Your task to perform on an android device: Go to notification settings Image 0: 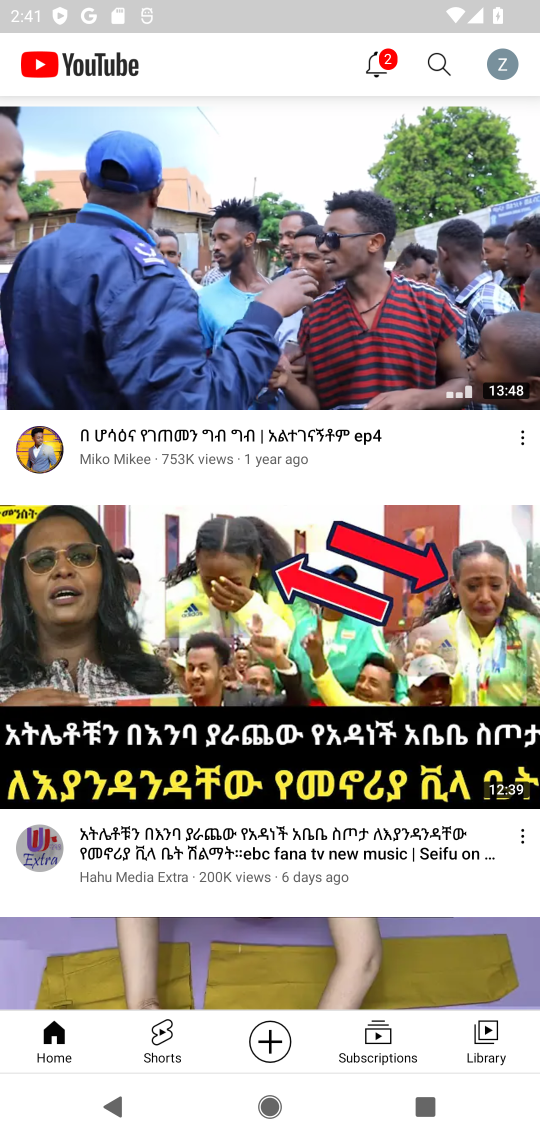
Step 0: drag from (300, 962) to (385, 441)
Your task to perform on an android device: Go to notification settings Image 1: 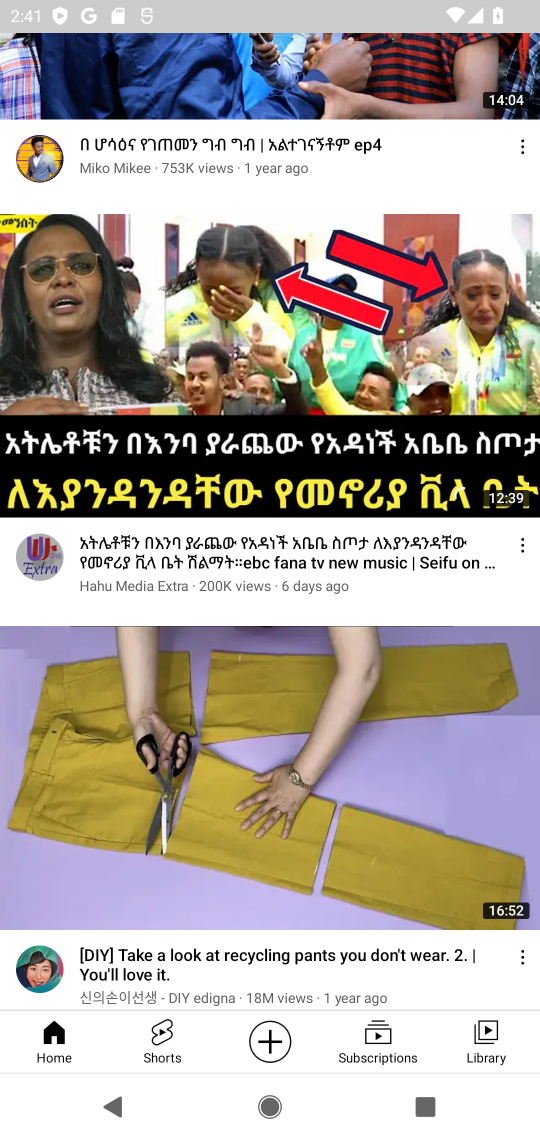
Step 1: press home button
Your task to perform on an android device: Go to notification settings Image 2: 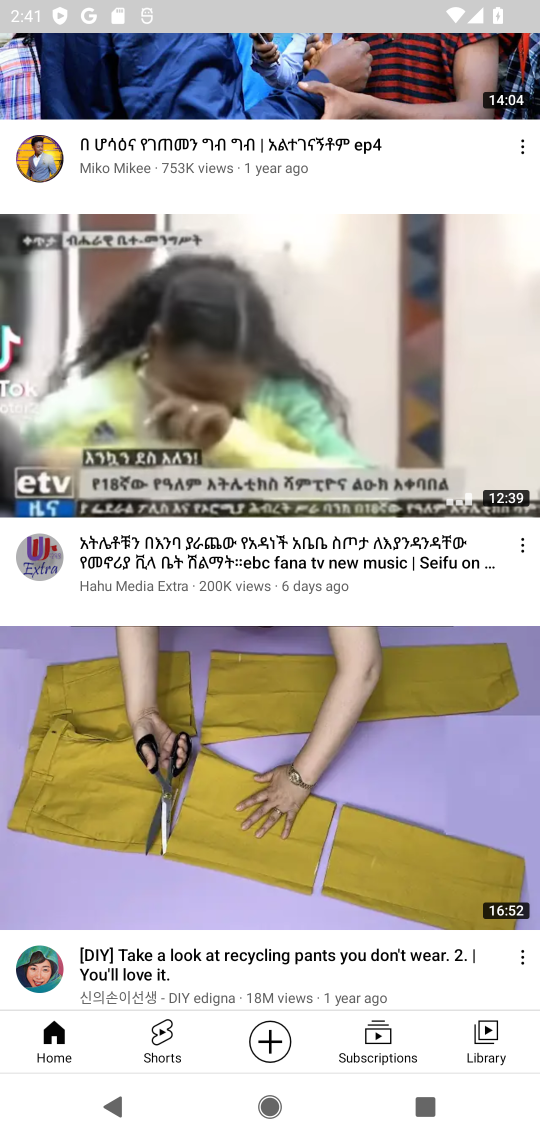
Step 2: drag from (304, 773) to (370, 180)
Your task to perform on an android device: Go to notification settings Image 3: 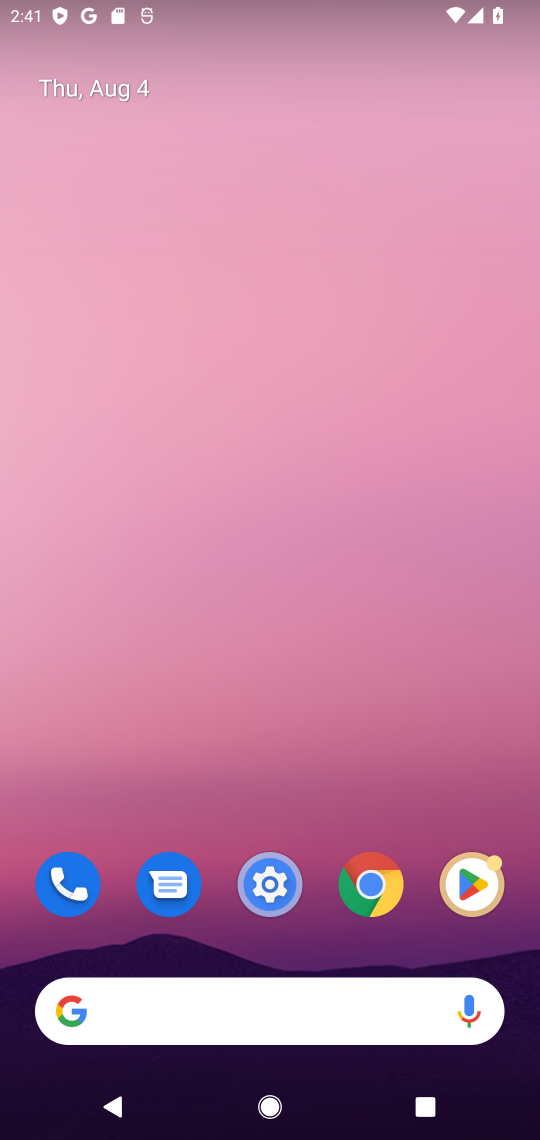
Step 3: drag from (234, 938) to (289, 517)
Your task to perform on an android device: Go to notification settings Image 4: 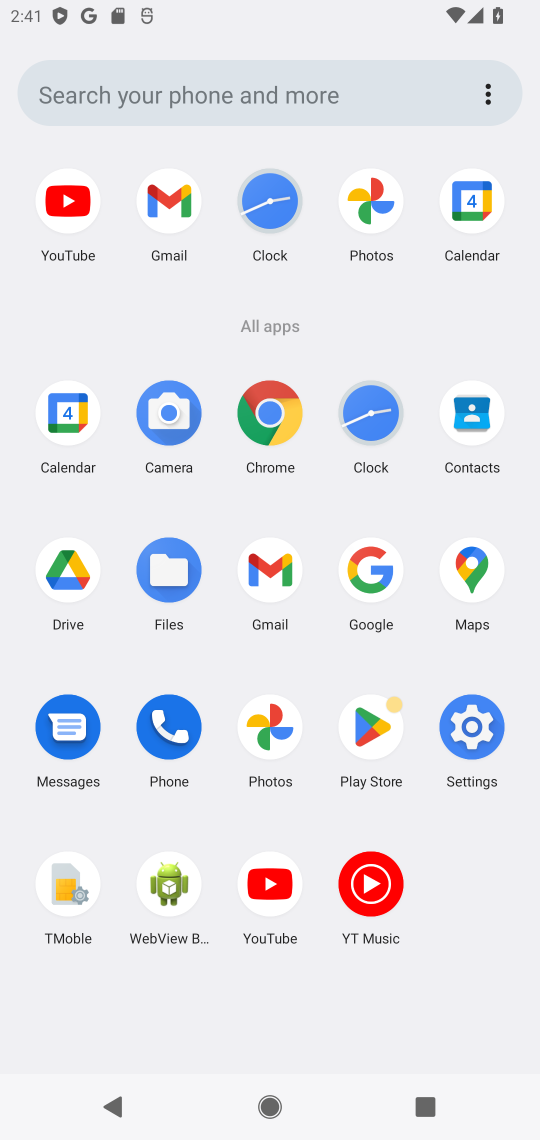
Step 4: click (478, 729)
Your task to perform on an android device: Go to notification settings Image 5: 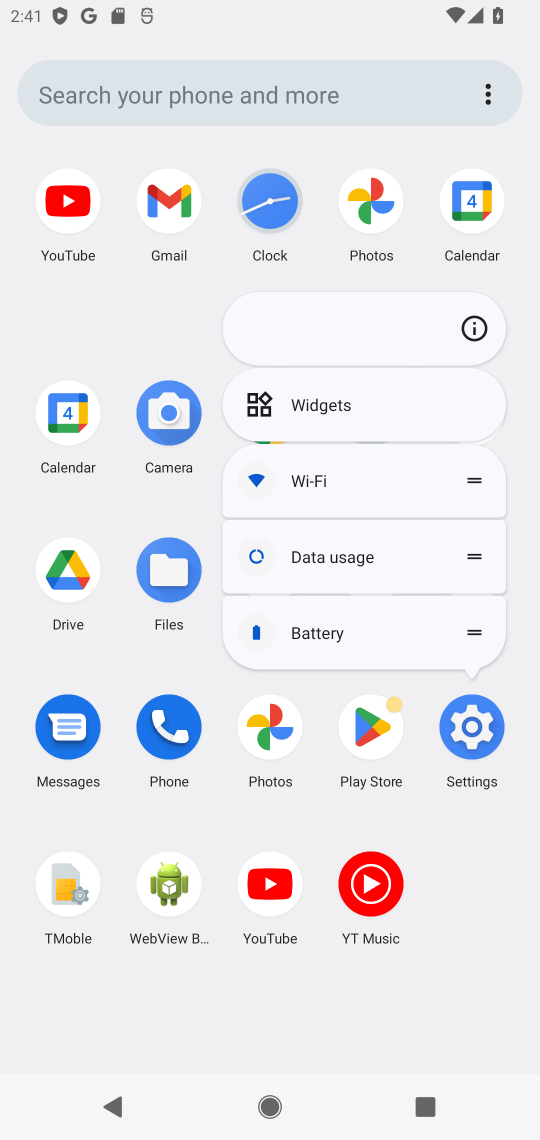
Step 5: click (481, 317)
Your task to perform on an android device: Go to notification settings Image 6: 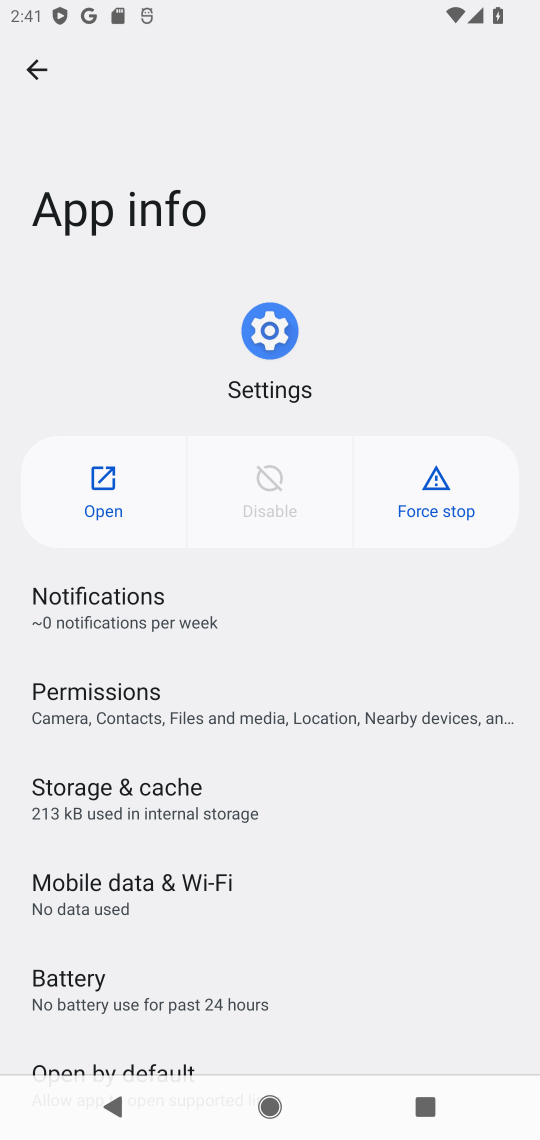
Step 6: click (94, 507)
Your task to perform on an android device: Go to notification settings Image 7: 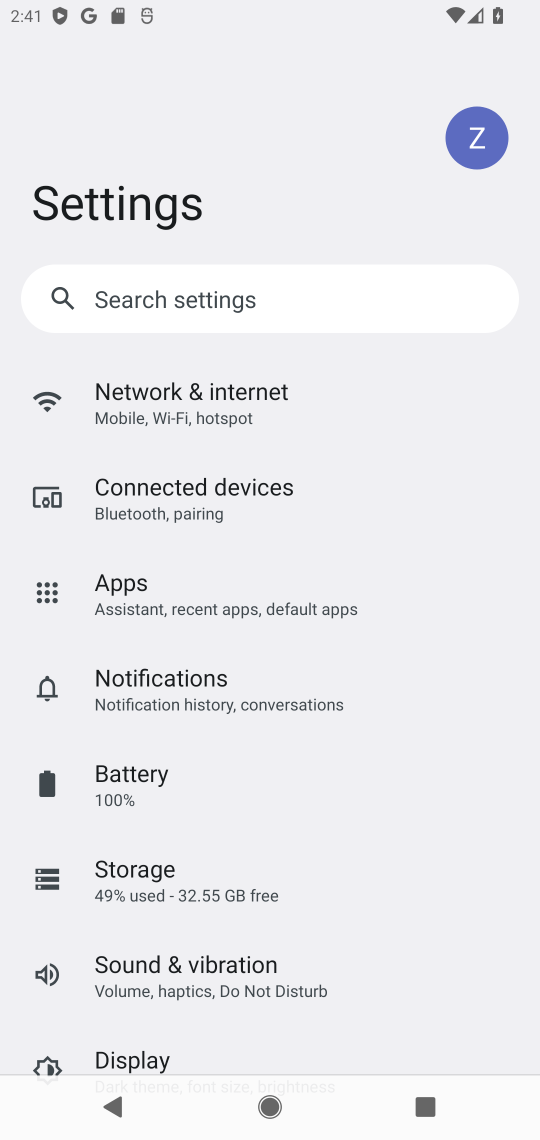
Step 7: drag from (211, 880) to (262, 499)
Your task to perform on an android device: Go to notification settings Image 8: 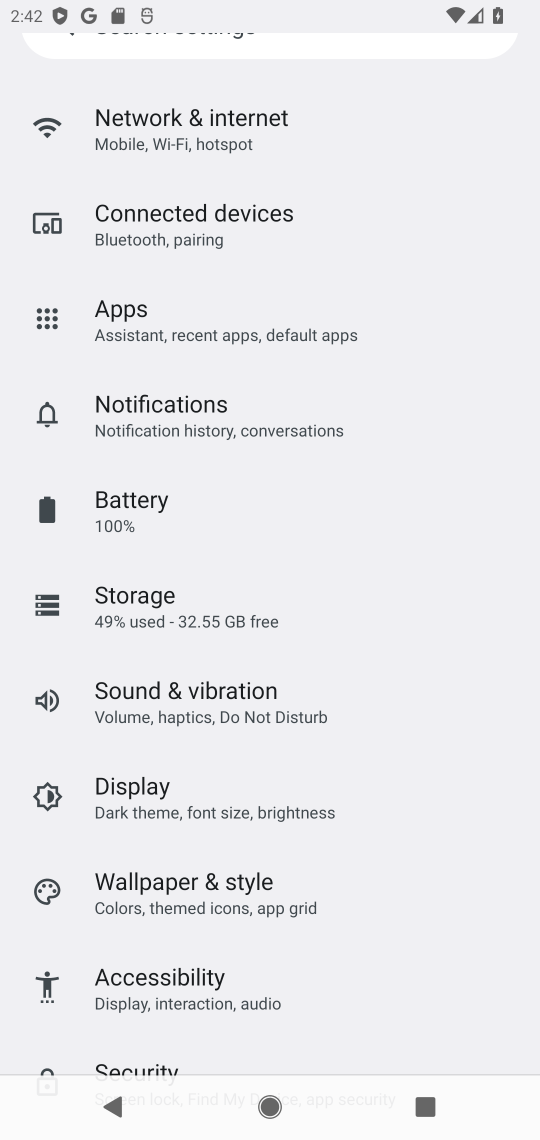
Step 8: click (152, 420)
Your task to perform on an android device: Go to notification settings Image 9: 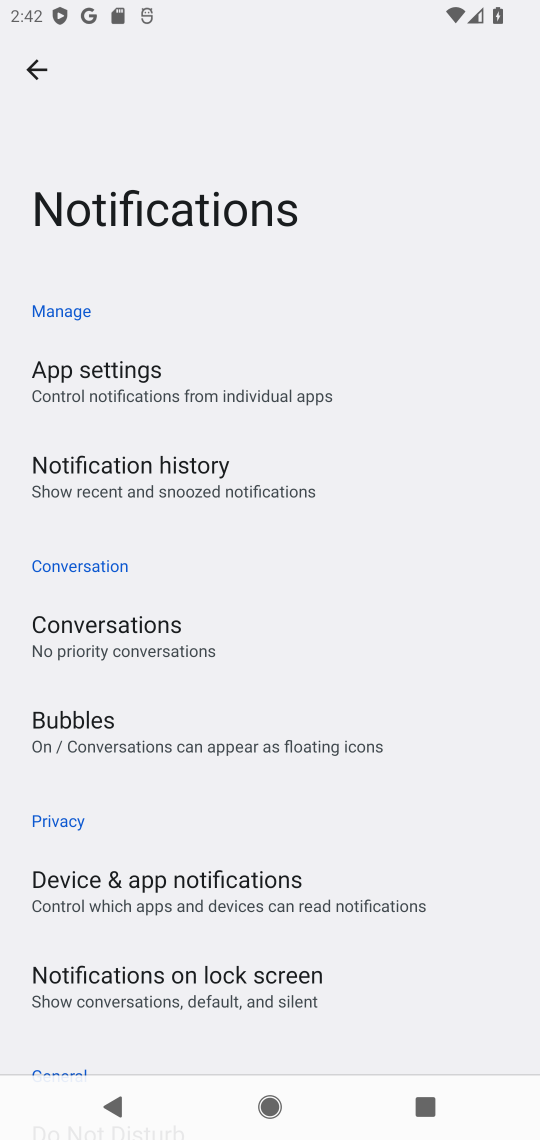
Step 9: task complete